Your task to perform on an android device: Show the shopping cart on amazon. Image 0: 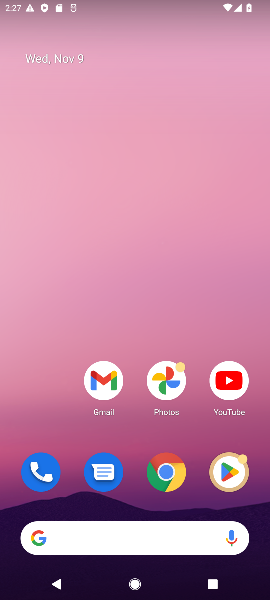
Step 0: click (114, 533)
Your task to perform on an android device: Show the shopping cart on amazon. Image 1: 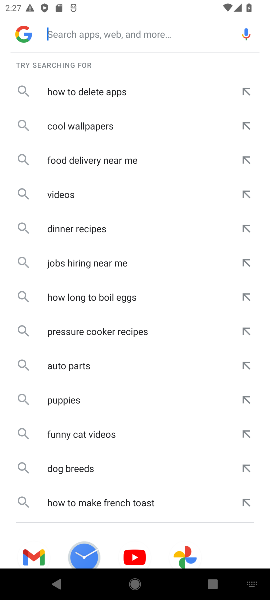
Step 1: type "amazon"
Your task to perform on an android device: Show the shopping cart on amazon. Image 2: 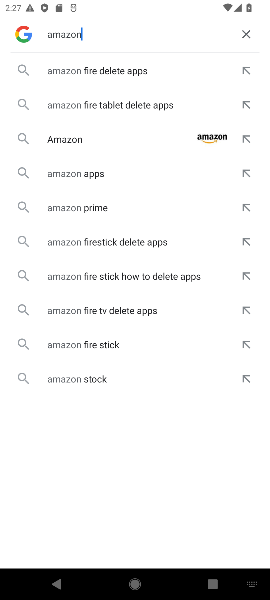
Step 2: click (73, 139)
Your task to perform on an android device: Show the shopping cart on amazon. Image 3: 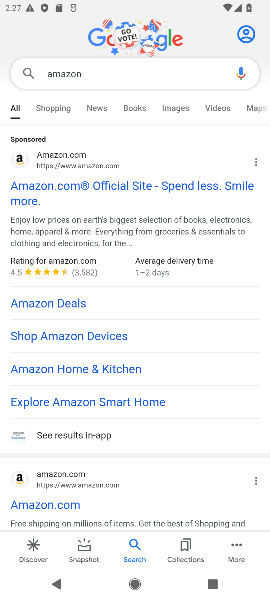
Step 3: click (51, 476)
Your task to perform on an android device: Show the shopping cart on amazon. Image 4: 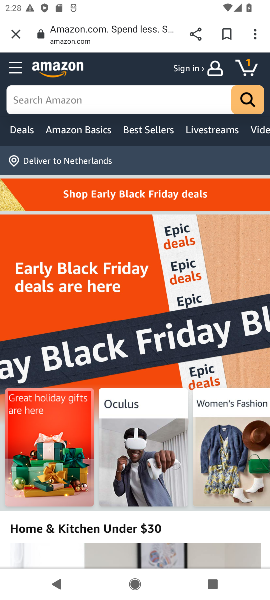
Step 4: task complete